Your task to perform on an android device: allow notifications from all sites in the chrome app Image 0: 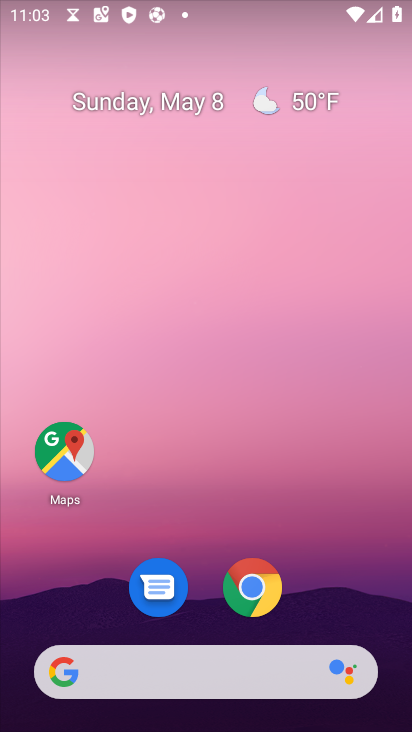
Step 0: click (265, 589)
Your task to perform on an android device: allow notifications from all sites in the chrome app Image 1: 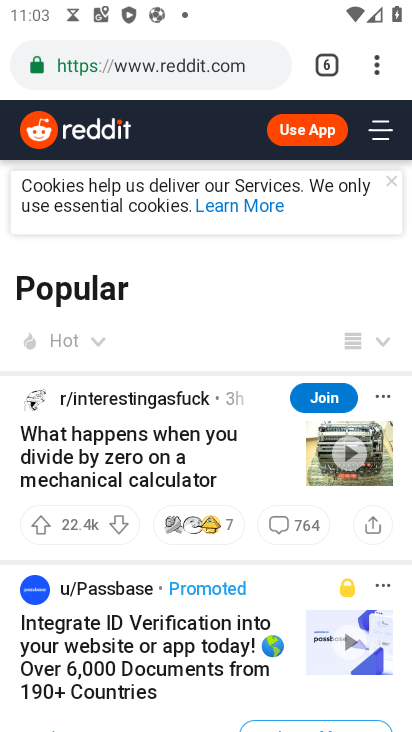
Step 1: drag from (375, 63) to (151, 634)
Your task to perform on an android device: allow notifications from all sites in the chrome app Image 2: 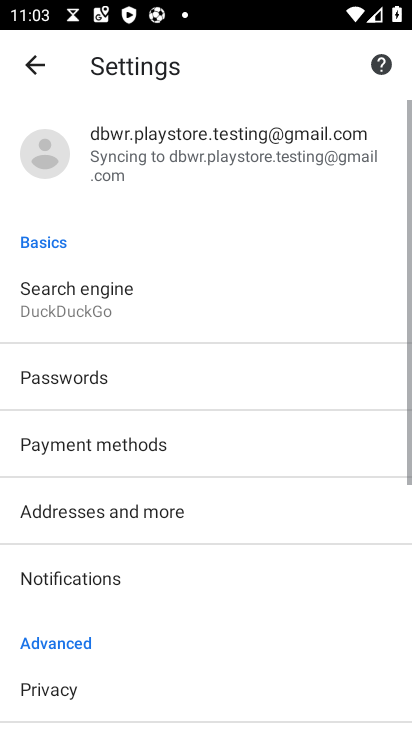
Step 2: drag from (151, 634) to (151, 420)
Your task to perform on an android device: allow notifications from all sites in the chrome app Image 3: 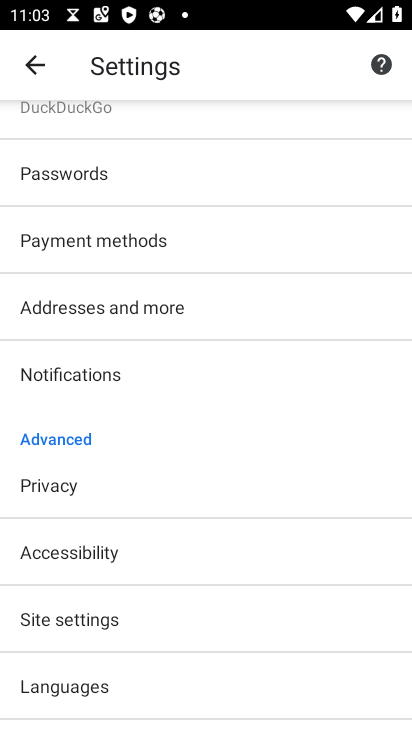
Step 3: click (67, 372)
Your task to perform on an android device: allow notifications from all sites in the chrome app Image 4: 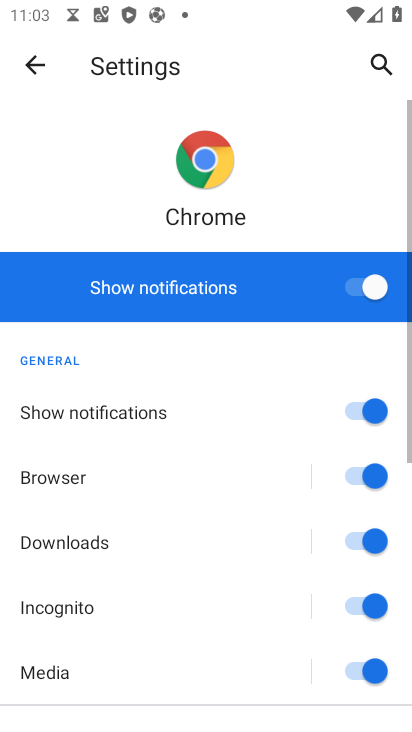
Step 4: drag from (131, 622) to (144, 274)
Your task to perform on an android device: allow notifications from all sites in the chrome app Image 5: 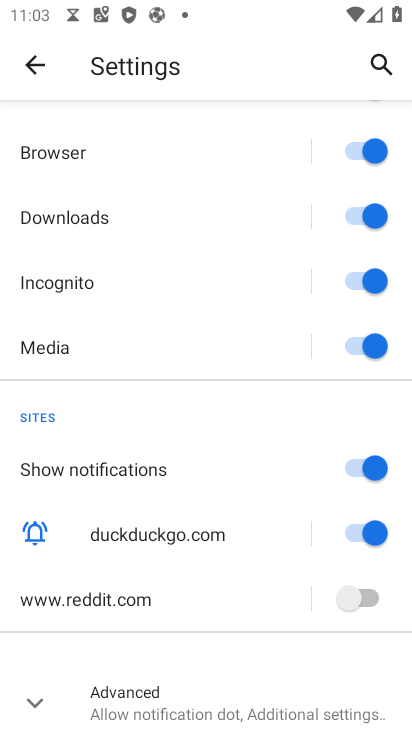
Step 5: drag from (143, 686) to (169, 397)
Your task to perform on an android device: allow notifications from all sites in the chrome app Image 6: 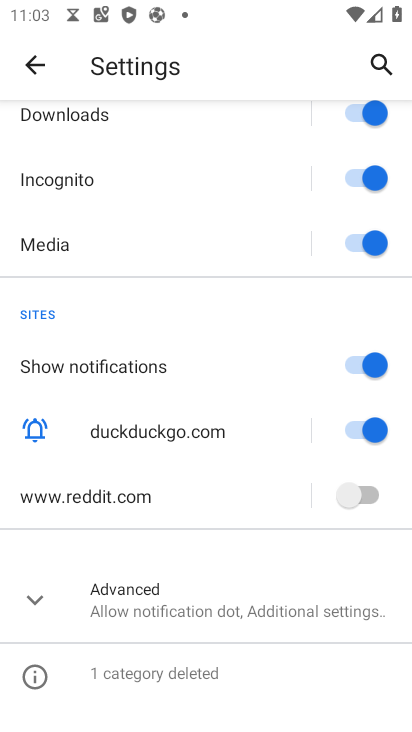
Step 6: click (350, 495)
Your task to perform on an android device: allow notifications from all sites in the chrome app Image 7: 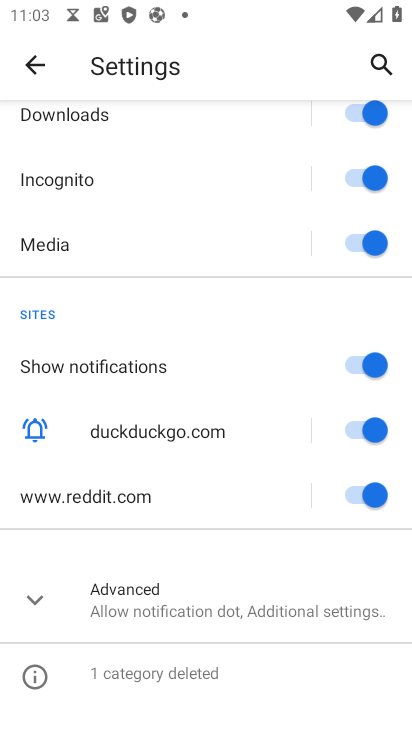
Step 7: task complete